Your task to perform on an android device: turn on improve location accuracy Image 0: 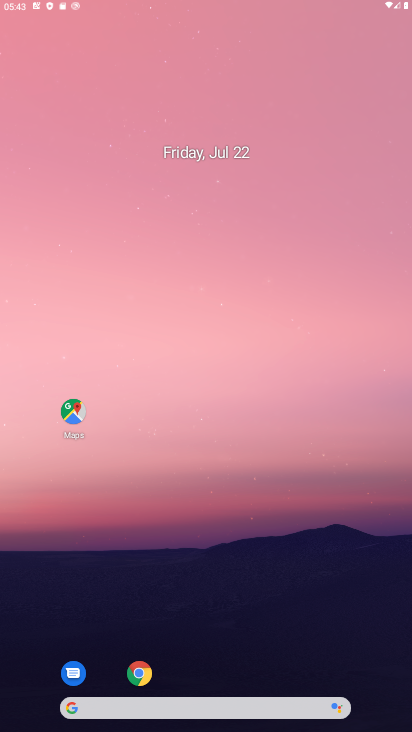
Step 0: press home button
Your task to perform on an android device: turn on improve location accuracy Image 1: 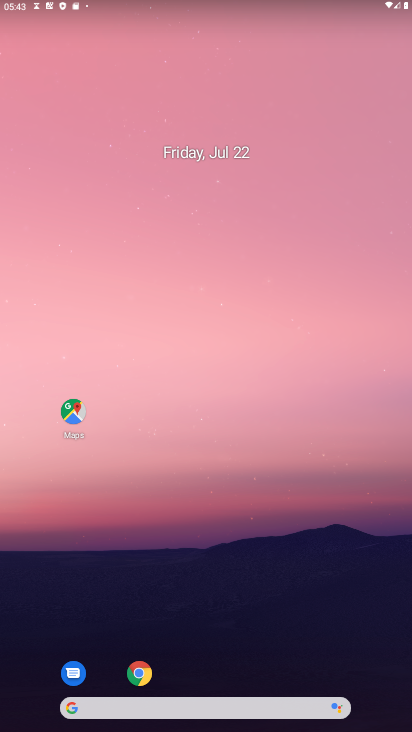
Step 1: drag from (230, 680) to (334, 49)
Your task to perform on an android device: turn on improve location accuracy Image 2: 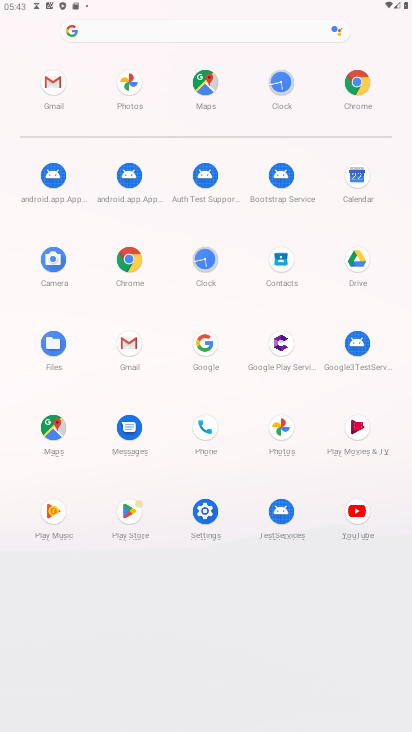
Step 2: click (203, 508)
Your task to perform on an android device: turn on improve location accuracy Image 3: 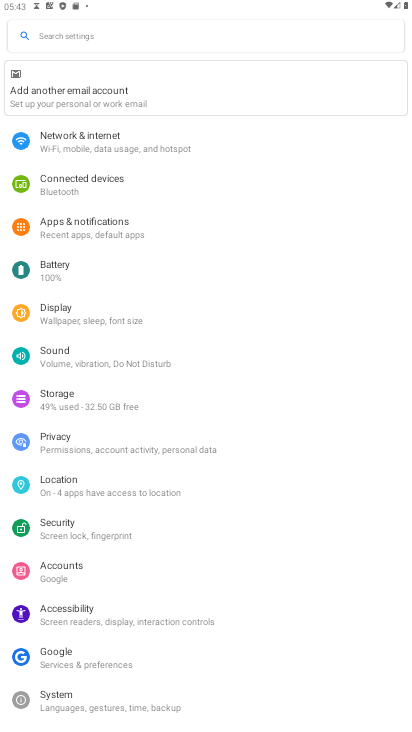
Step 3: click (57, 488)
Your task to perform on an android device: turn on improve location accuracy Image 4: 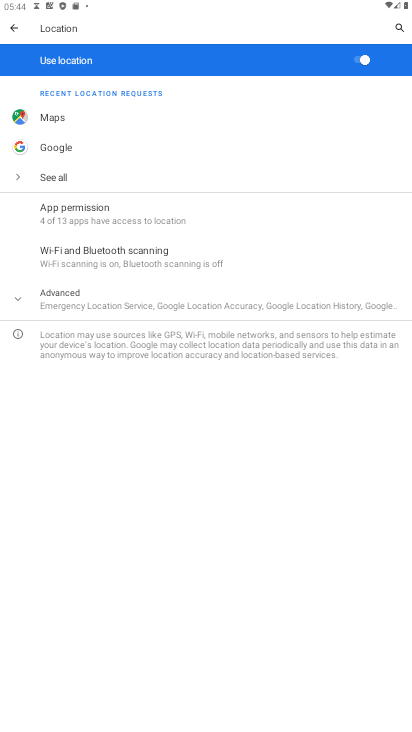
Step 4: click (70, 296)
Your task to perform on an android device: turn on improve location accuracy Image 5: 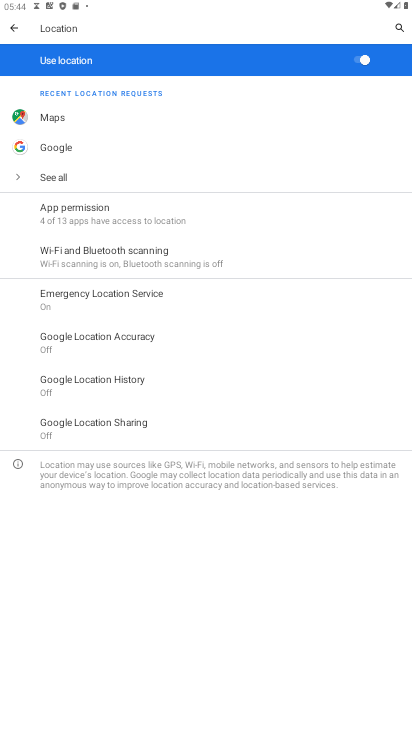
Step 5: click (71, 342)
Your task to perform on an android device: turn on improve location accuracy Image 6: 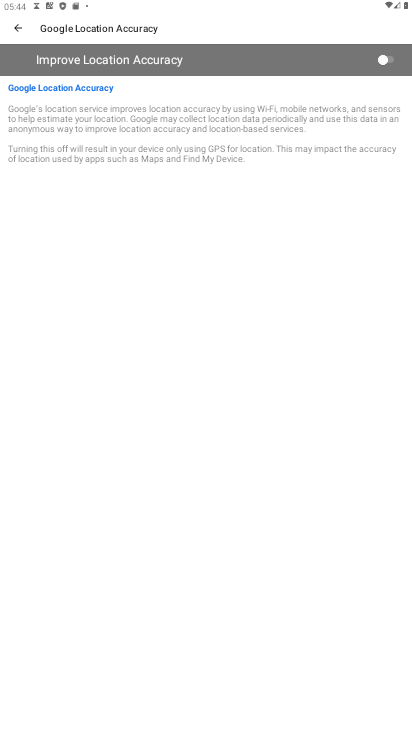
Step 6: click (385, 62)
Your task to perform on an android device: turn on improve location accuracy Image 7: 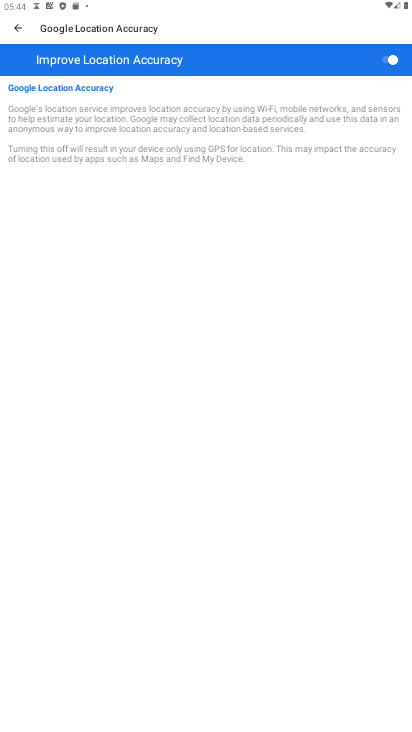
Step 7: task complete